Your task to perform on an android device: all mails in gmail Image 0: 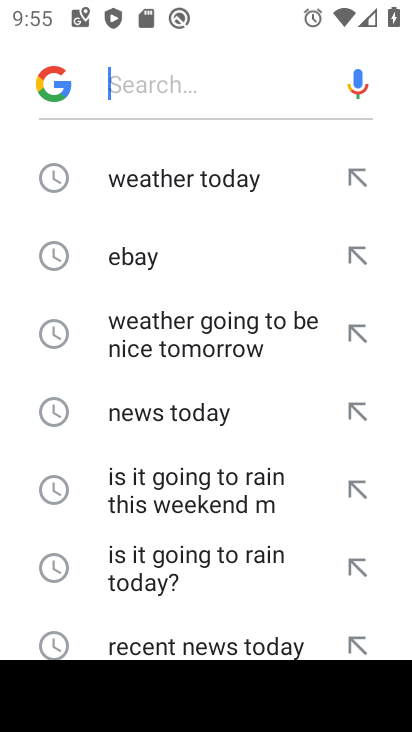
Step 0: press home button
Your task to perform on an android device: all mails in gmail Image 1: 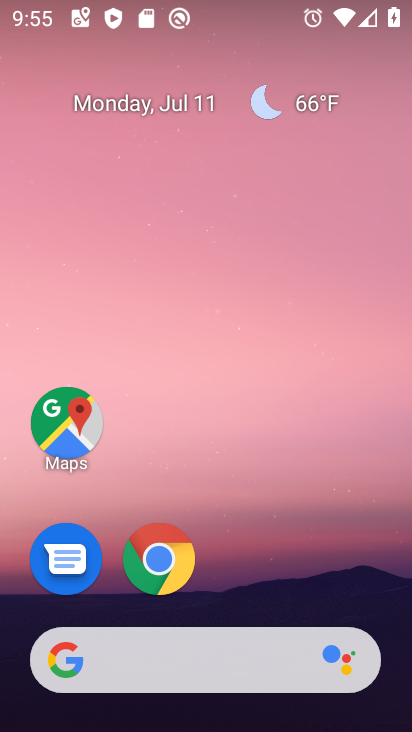
Step 1: drag from (347, 578) to (351, 220)
Your task to perform on an android device: all mails in gmail Image 2: 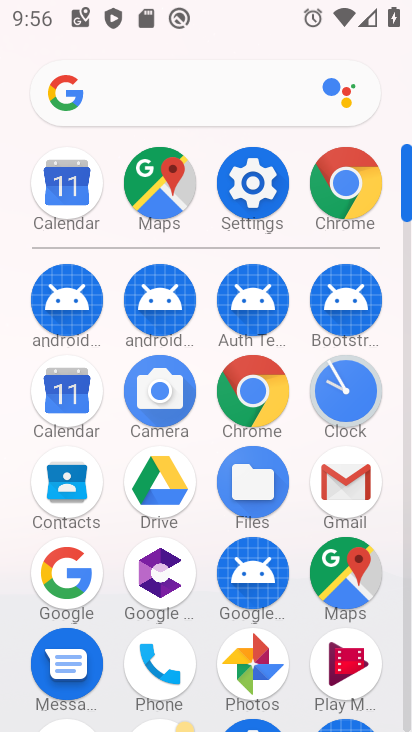
Step 2: click (350, 487)
Your task to perform on an android device: all mails in gmail Image 3: 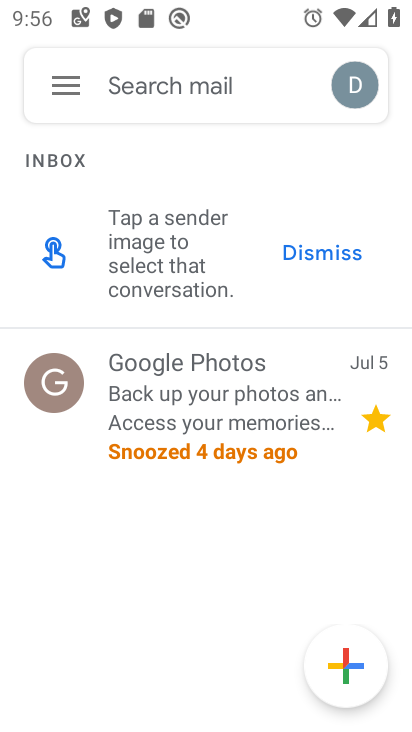
Step 3: click (61, 85)
Your task to perform on an android device: all mails in gmail Image 4: 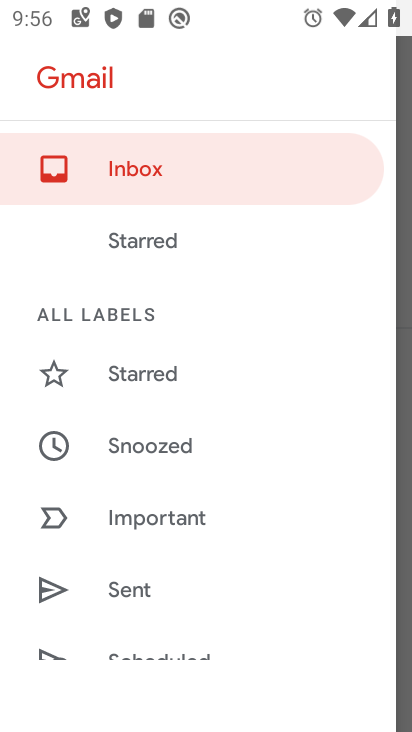
Step 4: drag from (269, 420) to (295, 334)
Your task to perform on an android device: all mails in gmail Image 5: 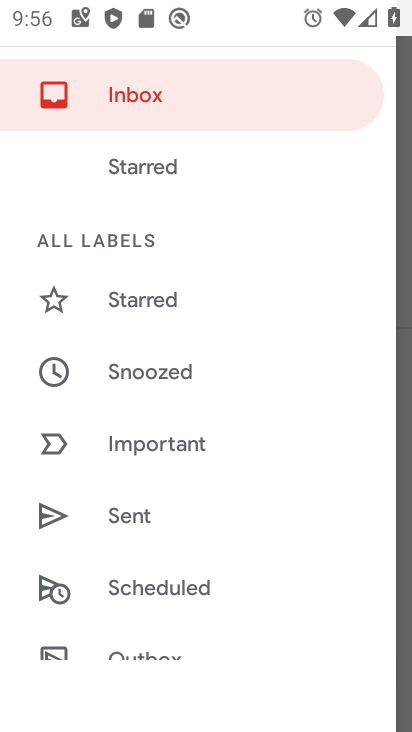
Step 5: drag from (298, 428) to (297, 379)
Your task to perform on an android device: all mails in gmail Image 6: 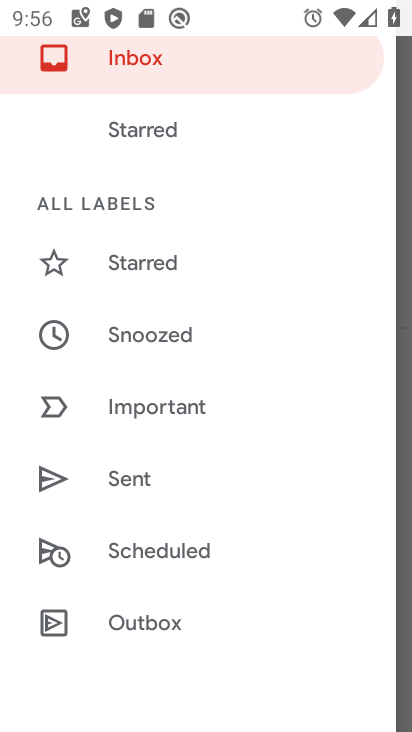
Step 6: drag from (303, 462) to (301, 398)
Your task to perform on an android device: all mails in gmail Image 7: 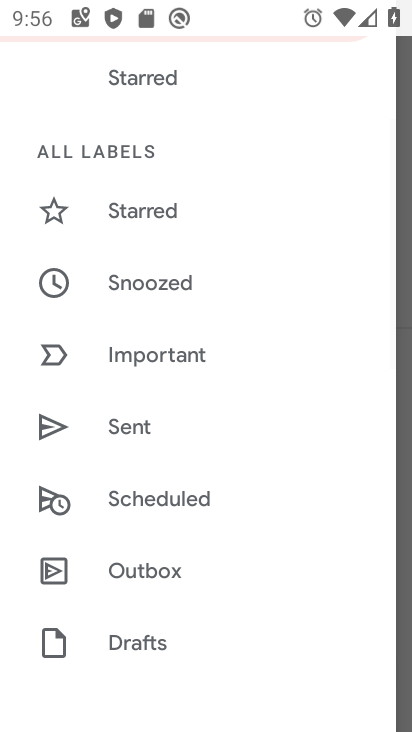
Step 7: drag from (302, 449) to (309, 390)
Your task to perform on an android device: all mails in gmail Image 8: 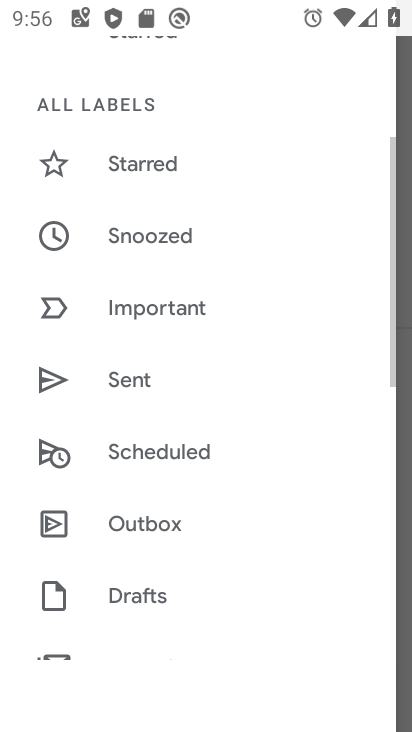
Step 8: drag from (302, 441) to (297, 382)
Your task to perform on an android device: all mails in gmail Image 9: 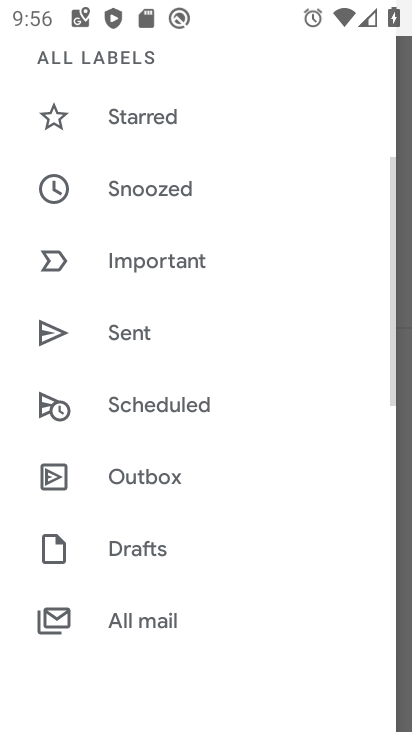
Step 9: drag from (298, 444) to (306, 368)
Your task to perform on an android device: all mails in gmail Image 10: 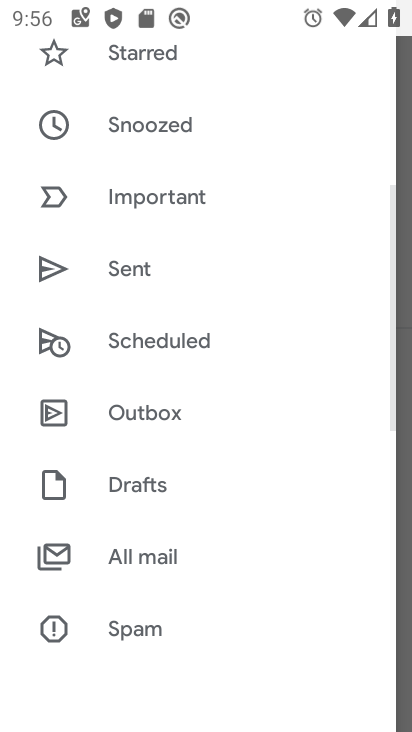
Step 10: drag from (299, 423) to (302, 356)
Your task to perform on an android device: all mails in gmail Image 11: 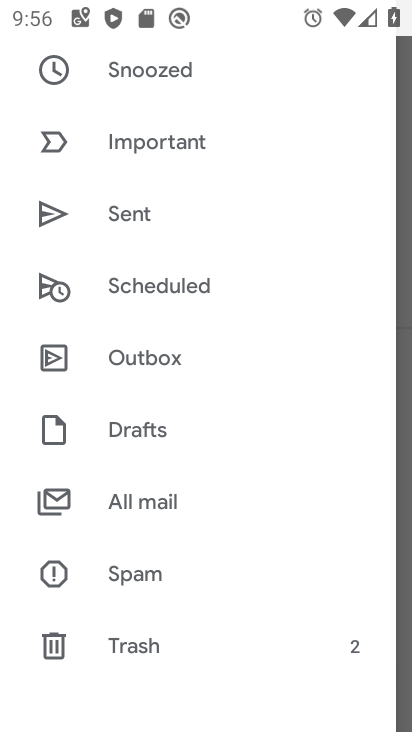
Step 11: drag from (293, 422) to (293, 349)
Your task to perform on an android device: all mails in gmail Image 12: 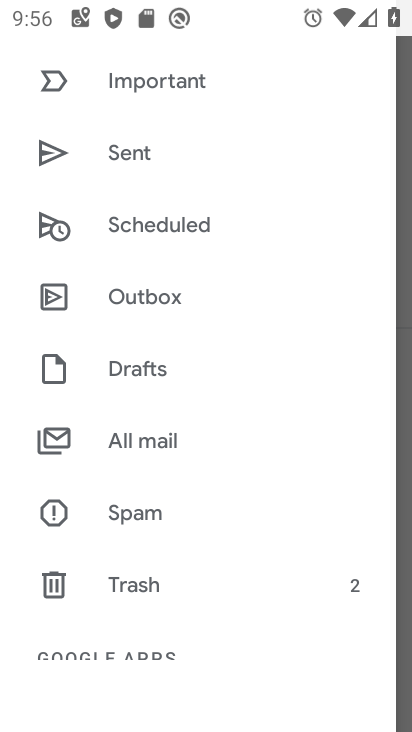
Step 12: click (202, 438)
Your task to perform on an android device: all mails in gmail Image 13: 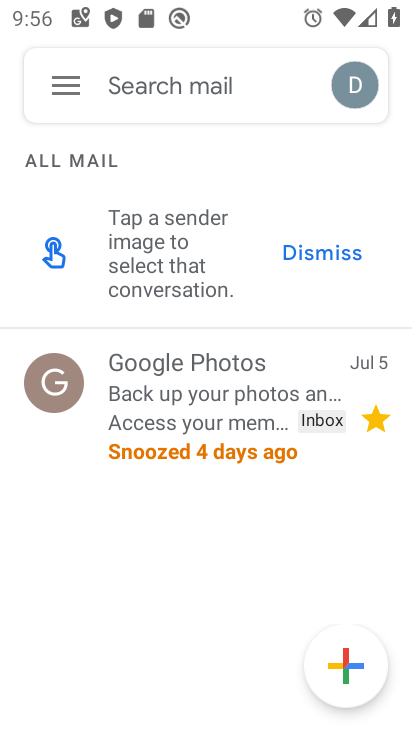
Step 13: task complete